Your task to perform on an android device: Open CNN.com Image 0: 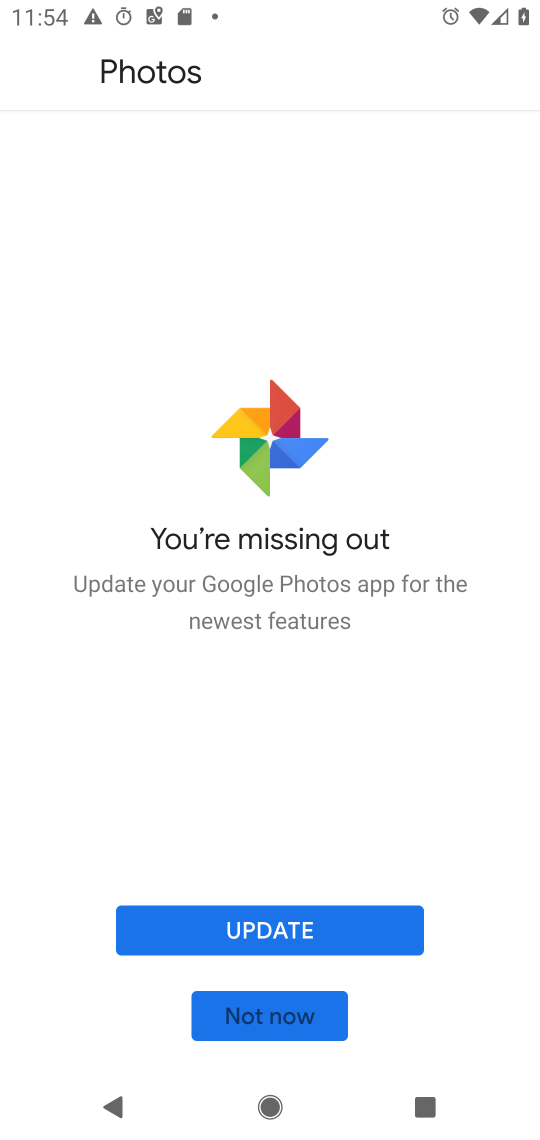
Step 0: press home button
Your task to perform on an android device: Open CNN.com Image 1: 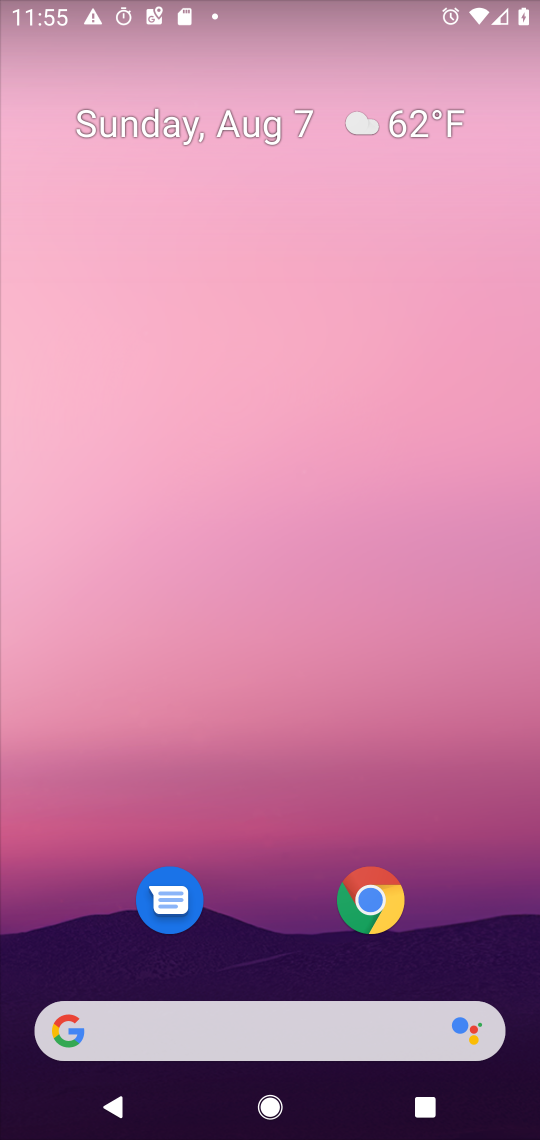
Step 1: click (372, 901)
Your task to perform on an android device: Open CNN.com Image 2: 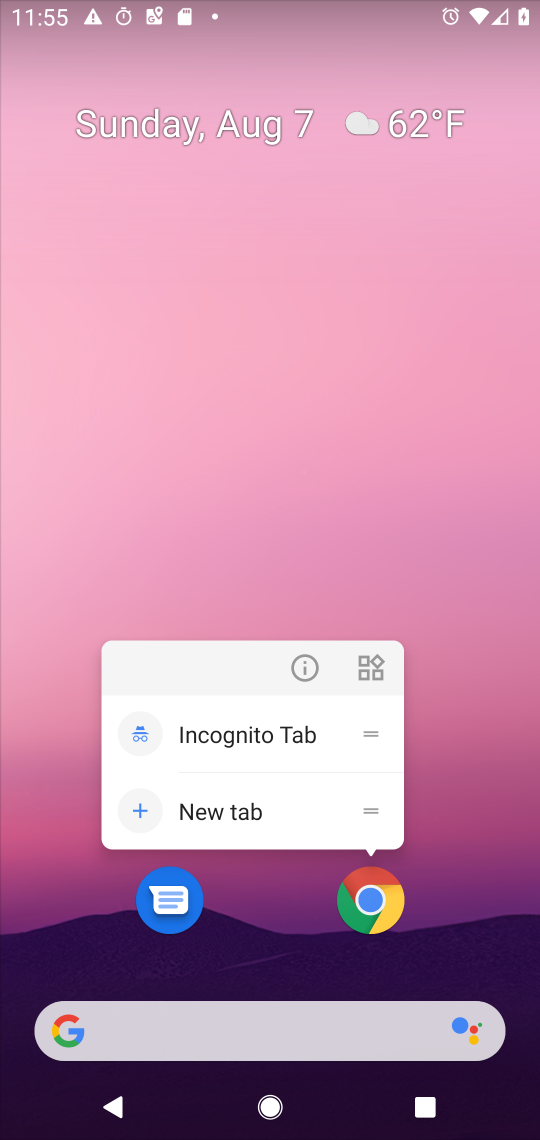
Step 2: drag from (450, 894) to (479, 55)
Your task to perform on an android device: Open CNN.com Image 3: 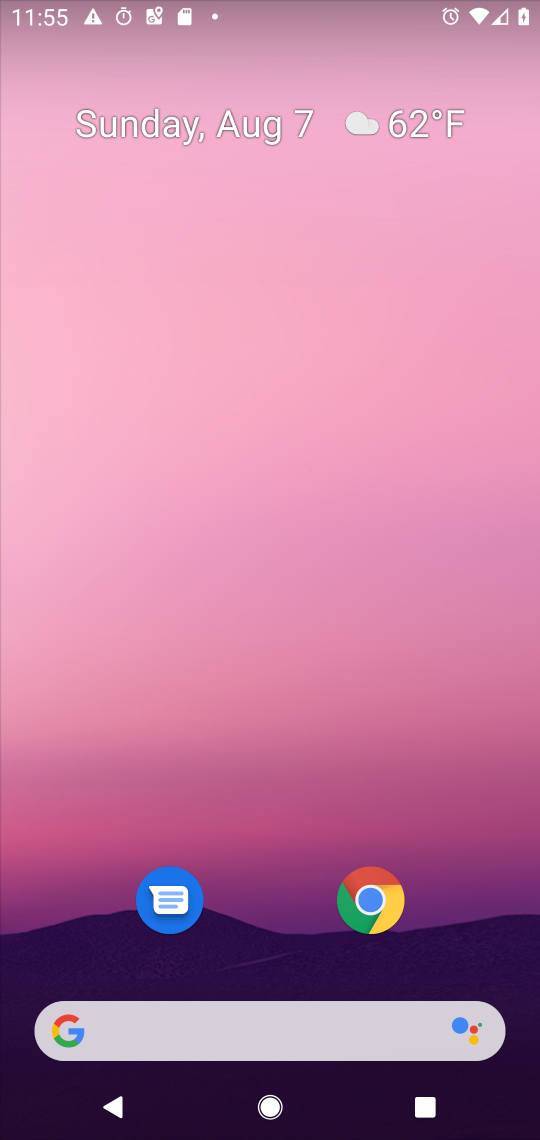
Step 3: drag from (449, 895) to (431, 24)
Your task to perform on an android device: Open CNN.com Image 4: 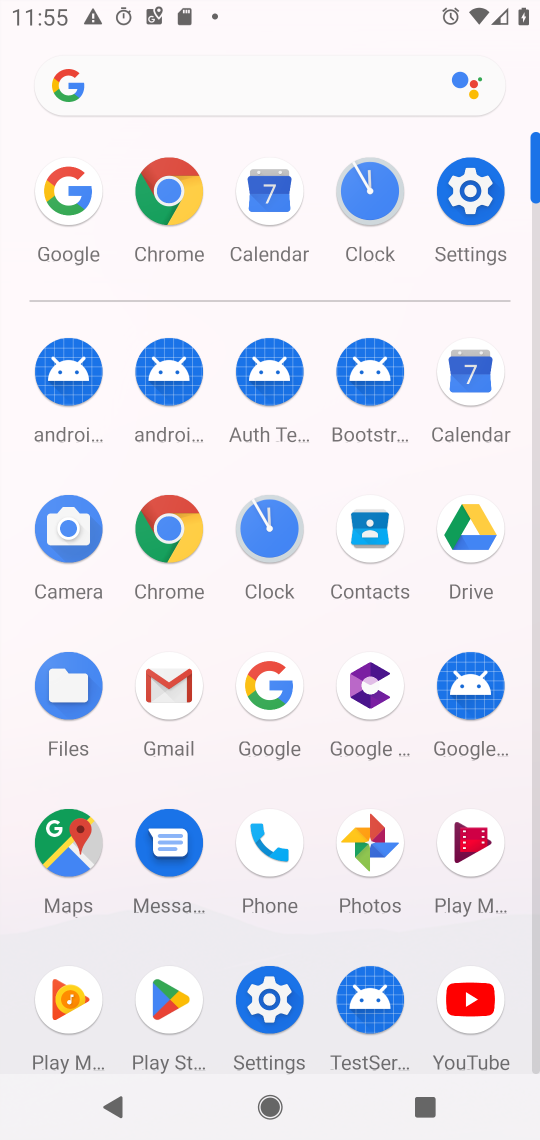
Step 4: click (162, 526)
Your task to perform on an android device: Open CNN.com Image 5: 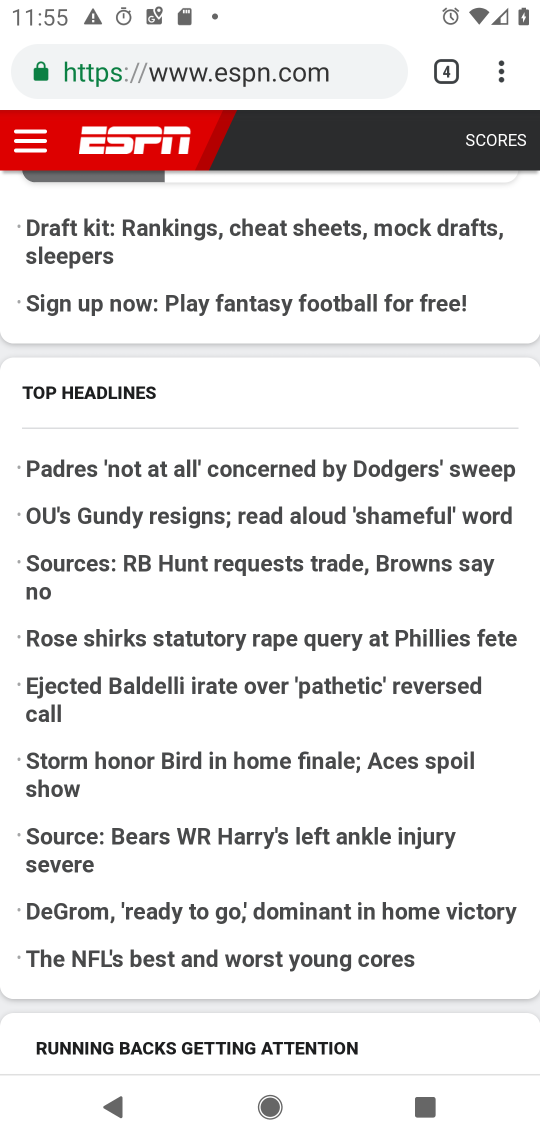
Step 5: drag from (351, 843) to (341, 631)
Your task to perform on an android device: Open CNN.com Image 6: 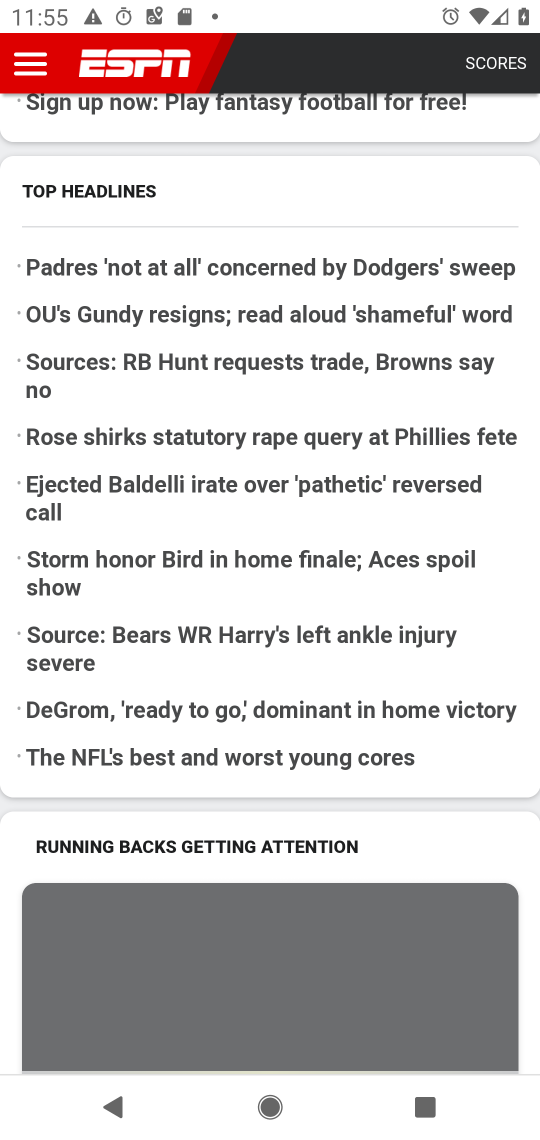
Step 6: drag from (427, 191) to (405, 931)
Your task to perform on an android device: Open CNN.com Image 7: 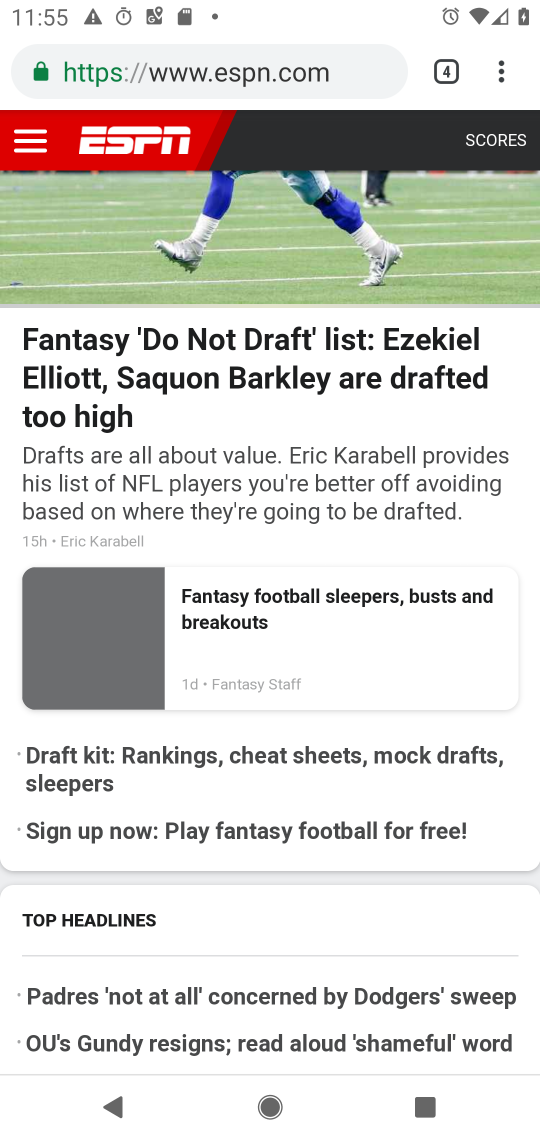
Step 7: click (451, 75)
Your task to perform on an android device: Open CNN.com Image 8: 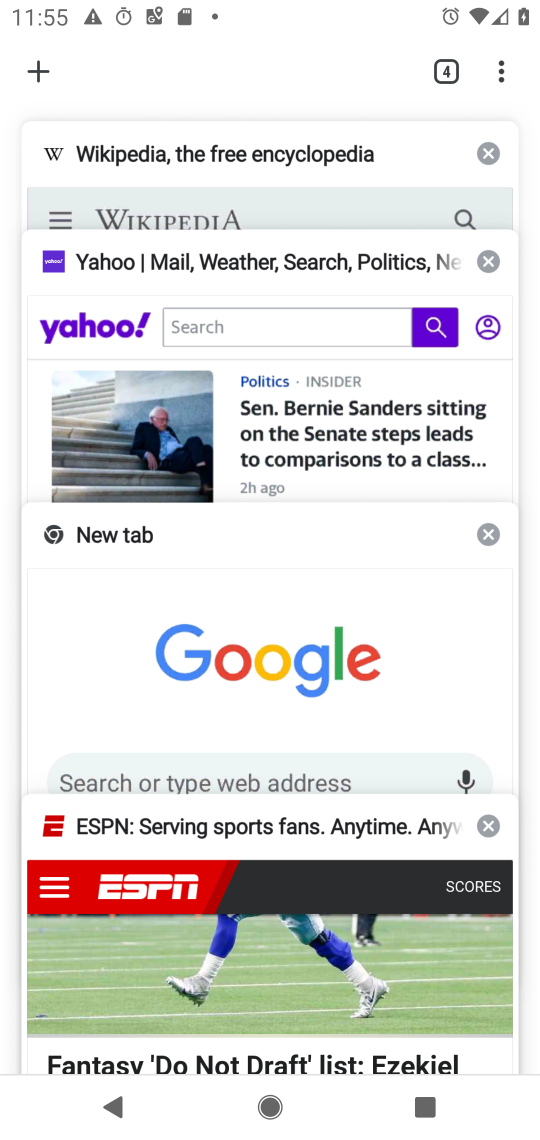
Step 8: click (38, 67)
Your task to perform on an android device: Open CNN.com Image 9: 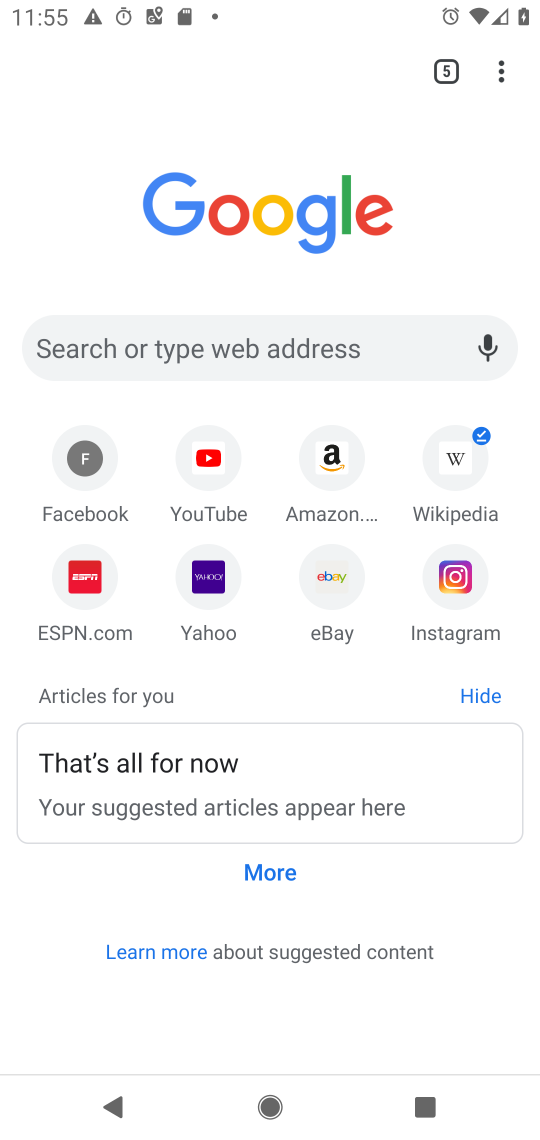
Step 9: click (181, 343)
Your task to perform on an android device: Open CNN.com Image 10: 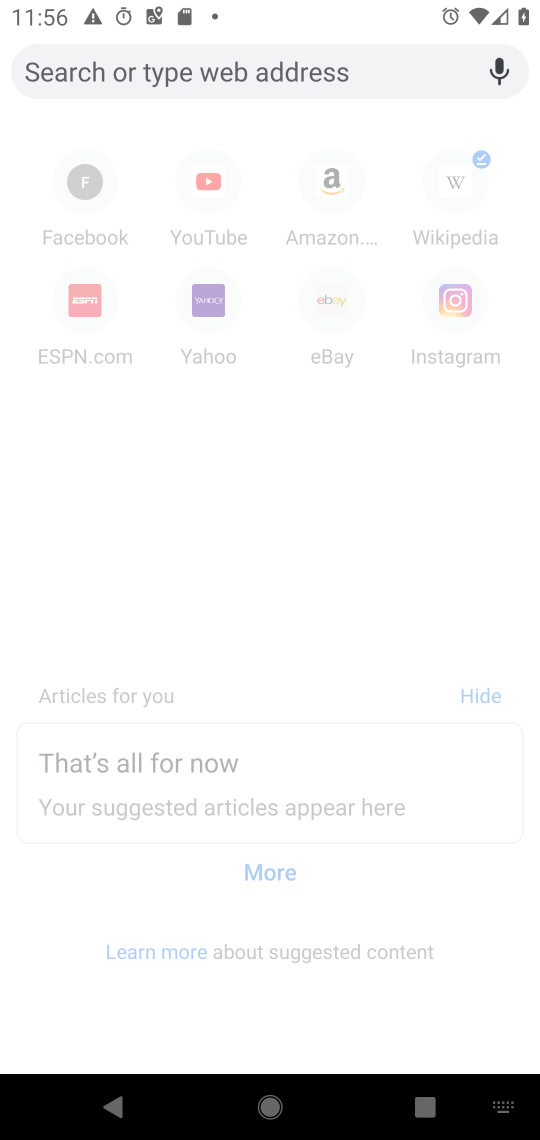
Step 10: type "cnn.com"
Your task to perform on an android device: Open CNN.com Image 11: 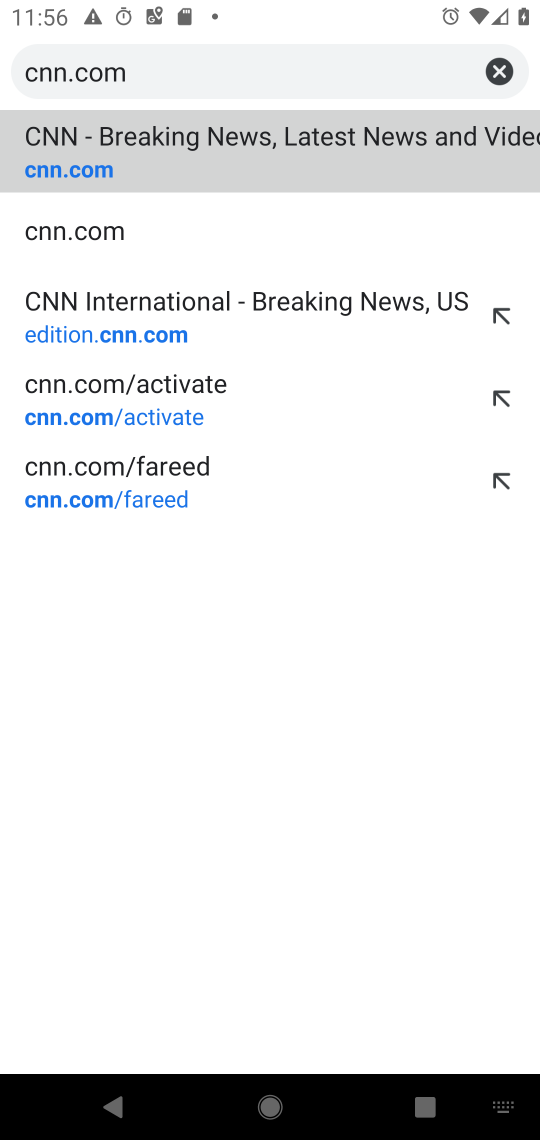
Step 11: click (145, 153)
Your task to perform on an android device: Open CNN.com Image 12: 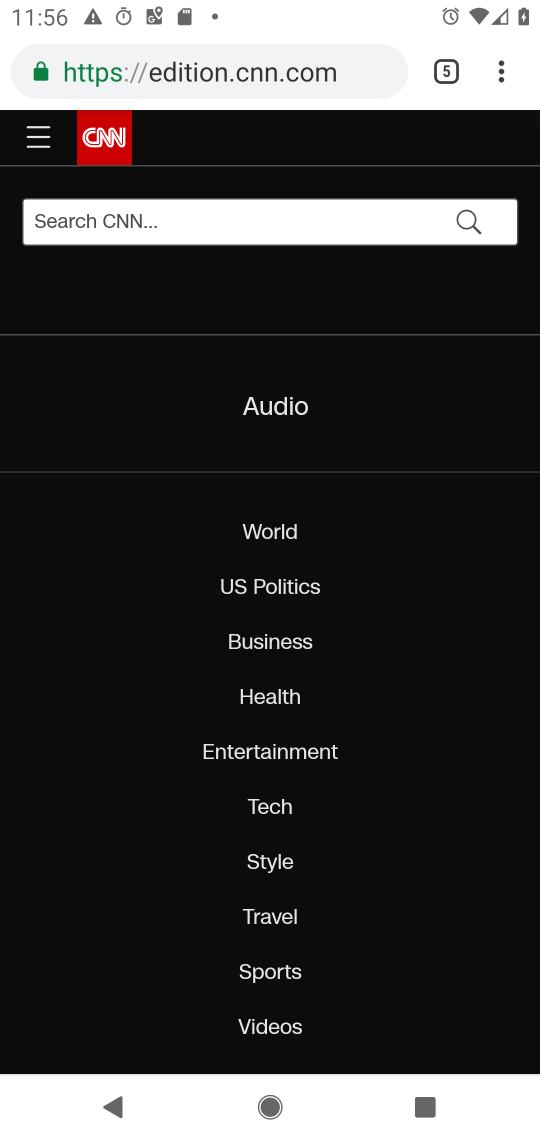
Step 12: task complete